Your task to perform on an android device: turn on priority inbox in the gmail app Image 0: 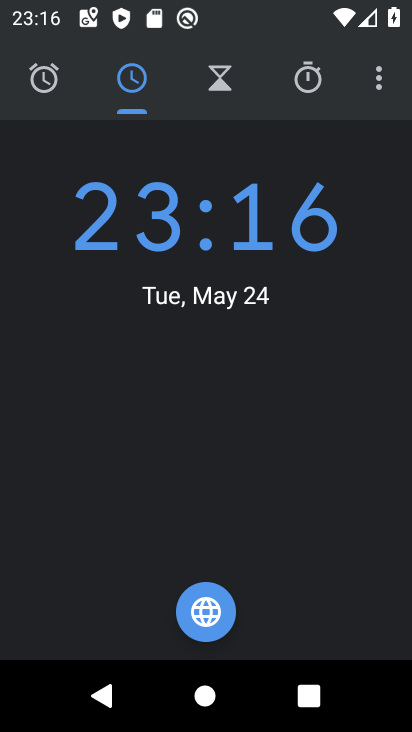
Step 0: press home button
Your task to perform on an android device: turn on priority inbox in the gmail app Image 1: 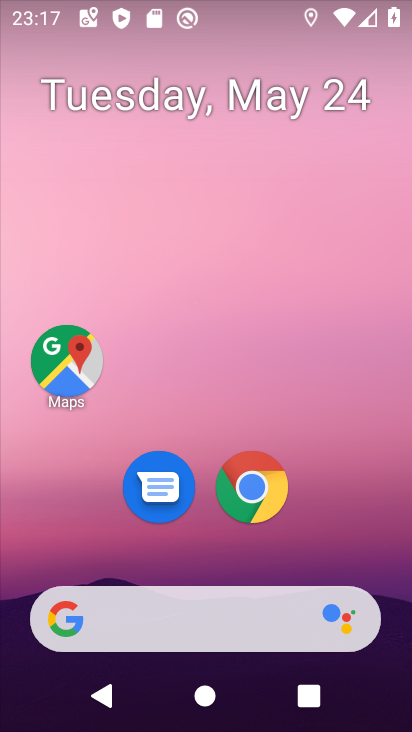
Step 1: drag from (225, 491) to (226, 5)
Your task to perform on an android device: turn on priority inbox in the gmail app Image 2: 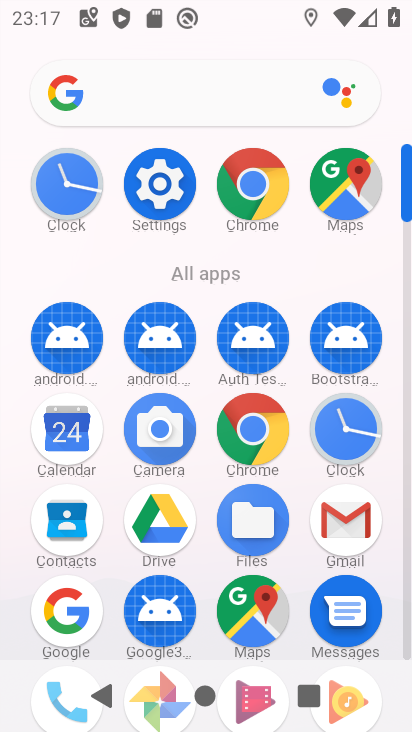
Step 2: click (353, 510)
Your task to perform on an android device: turn on priority inbox in the gmail app Image 3: 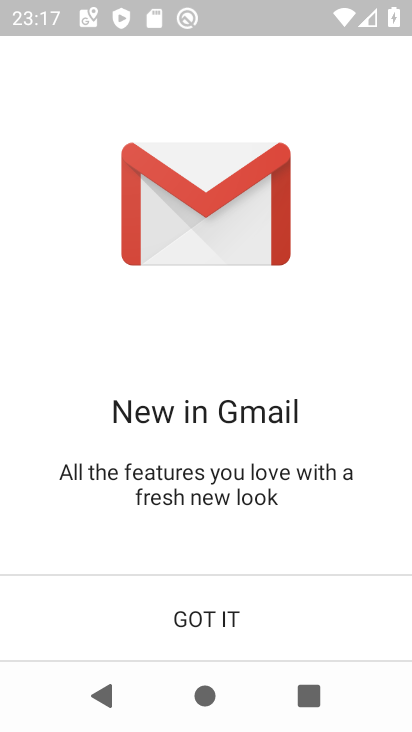
Step 3: click (185, 617)
Your task to perform on an android device: turn on priority inbox in the gmail app Image 4: 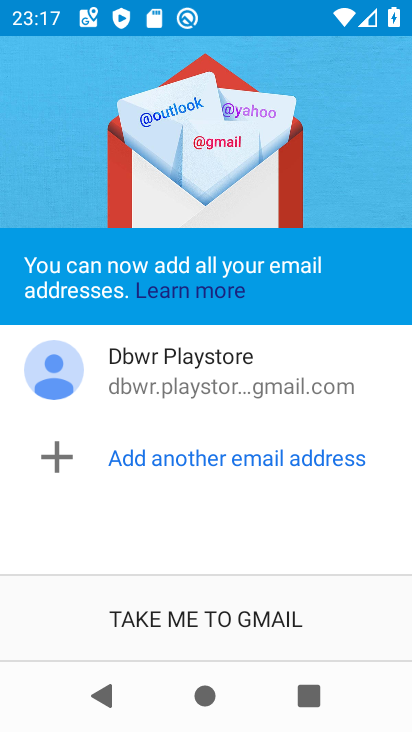
Step 4: click (197, 605)
Your task to perform on an android device: turn on priority inbox in the gmail app Image 5: 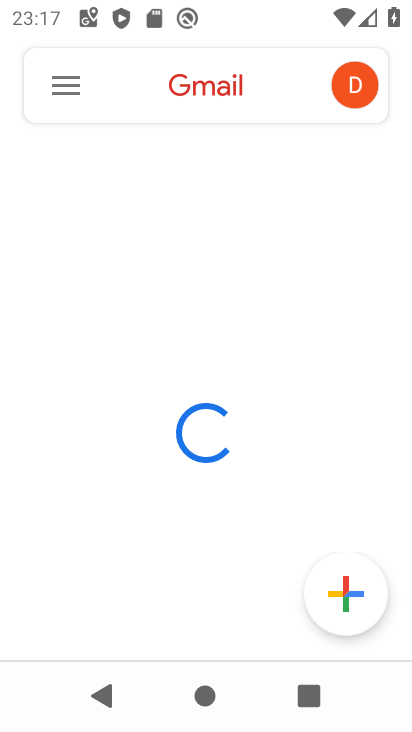
Step 5: click (52, 76)
Your task to perform on an android device: turn on priority inbox in the gmail app Image 6: 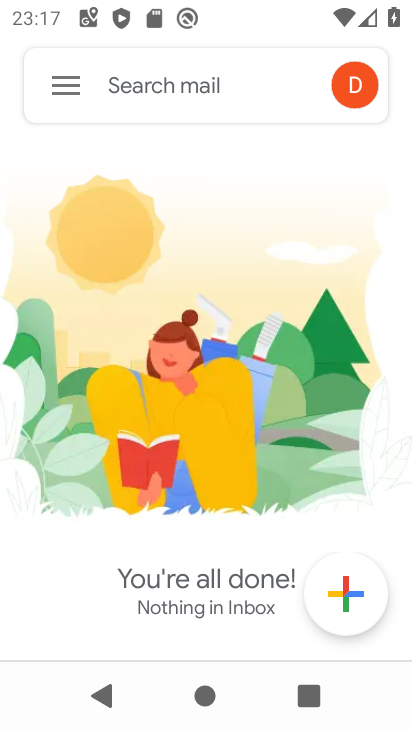
Step 6: click (58, 86)
Your task to perform on an android device: turn on priority inbox in the gmail app Image 7: 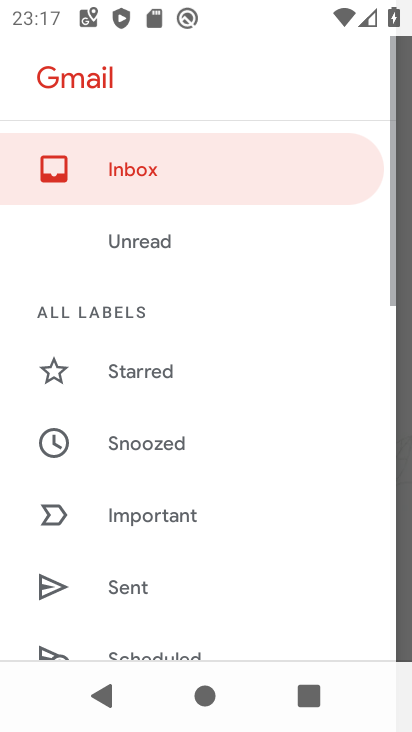
Step 7: drag from (209, 587) to (258, 124)
Your task to perform on an android device: turn on priority inbox in the gmail app Image 8: 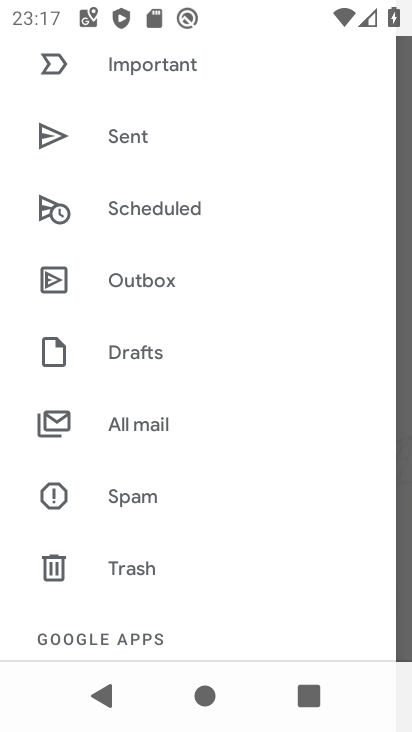
Step 8: drag from (158, 489) to (229, 43)
Your task to perform on an android device: turn on priority inbox in the gmail app Image 9: 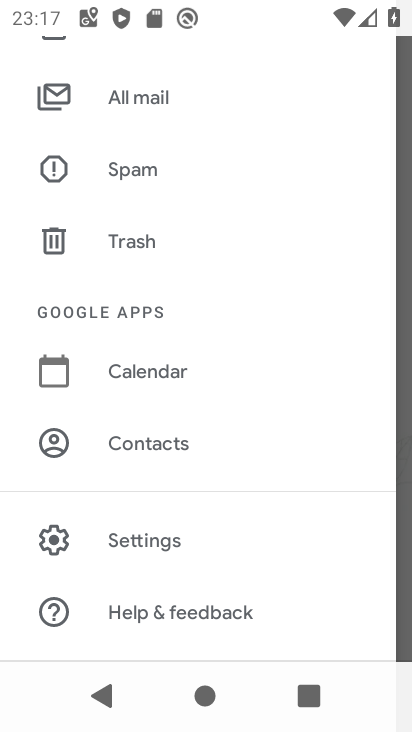
Step 9: click (125, 555)
Your task to perform on an android device: turn on priority inbox in the gmail app Image 10: 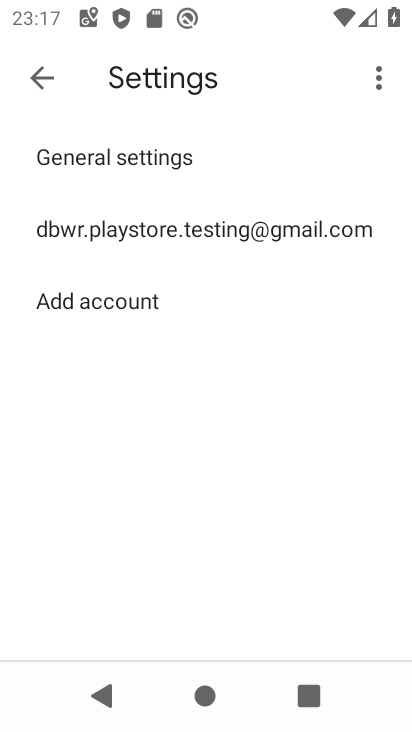
Step 10: click (134, 229)
Your task to perform on an android device: turn on priority inbox in the gmail app Image 11: 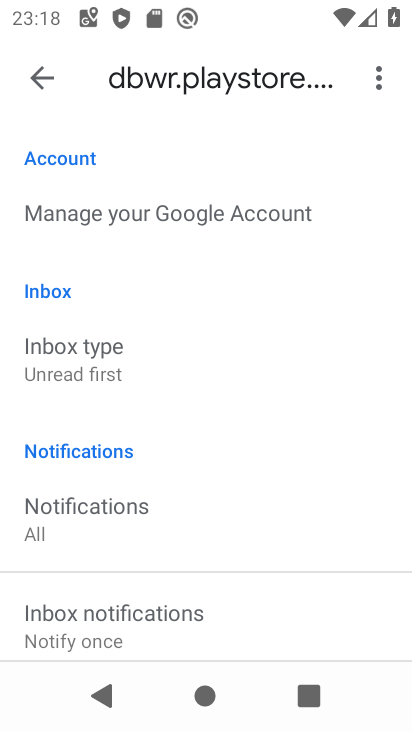
Step 11: click (73, 349)
Your task to perform on an android device: turn on priority inbox in the gmail app Image 12: 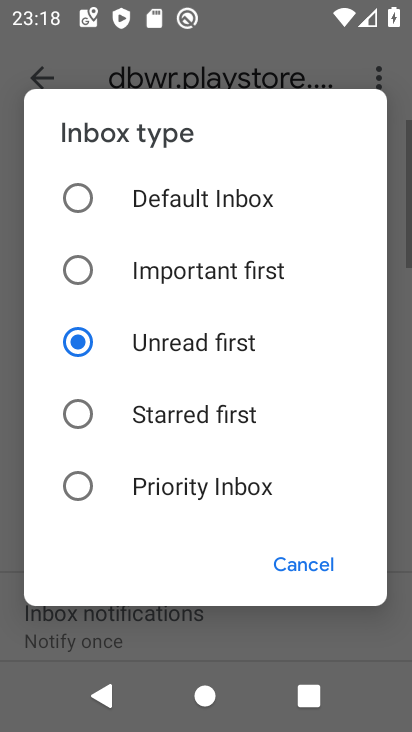
Step 12: click (97, 476)
Your task to perform on an android device: turn on priority inbox in the gmail app Image 13: 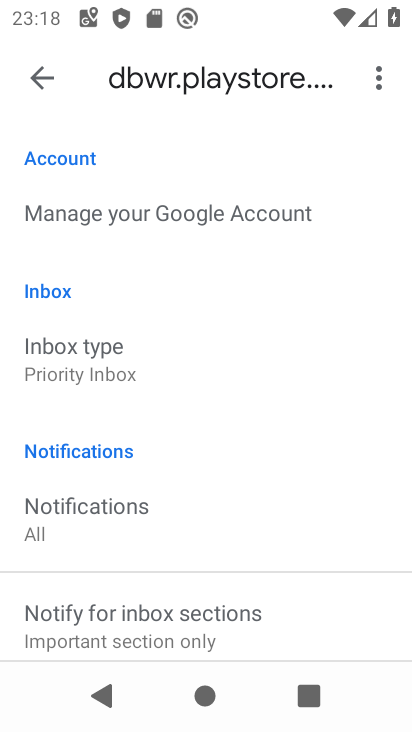
Step 13: task complete